Your task to perform on an android device: Open the map Image 0: 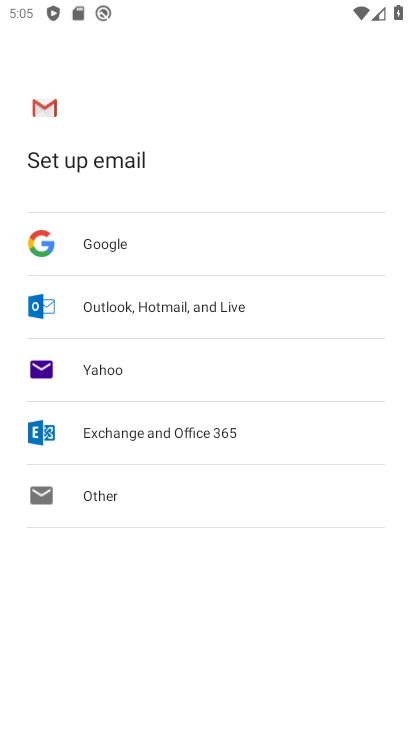
Step 0: press back button
Your task to perform on an android device: Open the map Image 1: 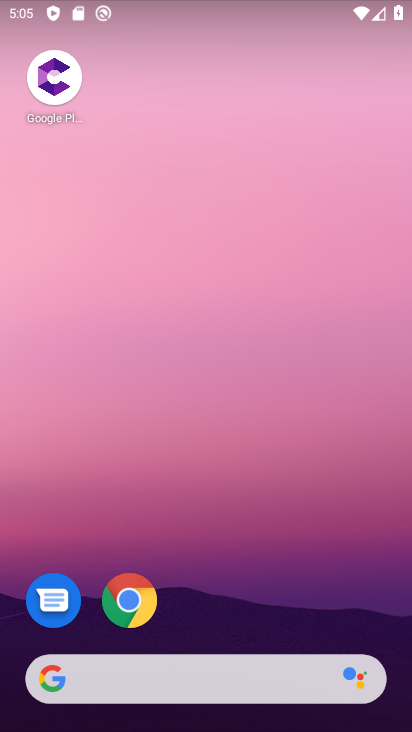
Step 1: drag from (247, 600) to (211, 95)
Your task to perform on an android device: Open the map Image 2: 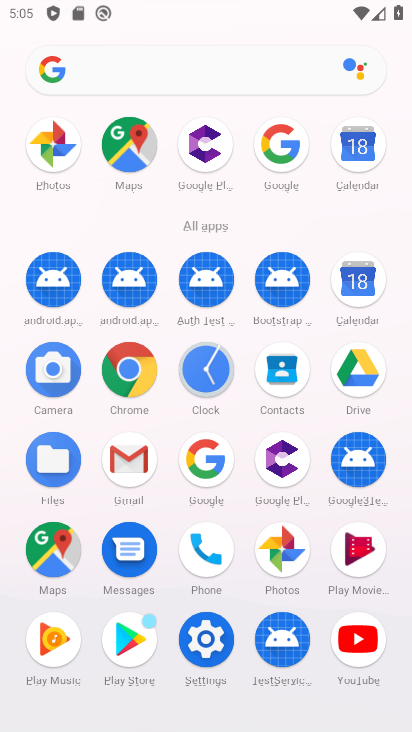
Step 2: click (128, 145)
Your task to perform on an android device: Open the map Image 3: 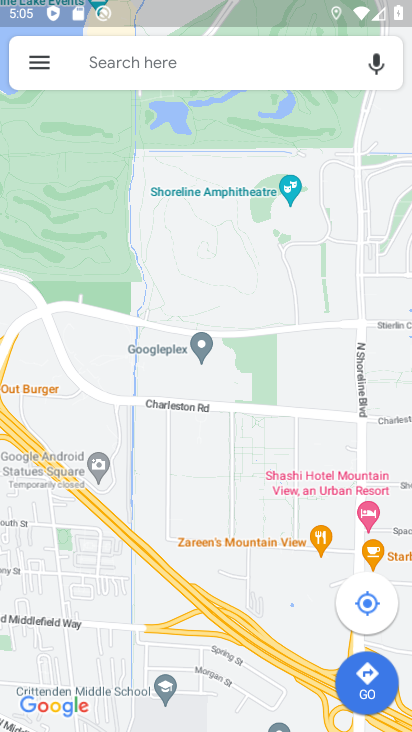
Step 3: task complete